Your task to perform on an android device: Show me the alarms in the clock app Image 0: 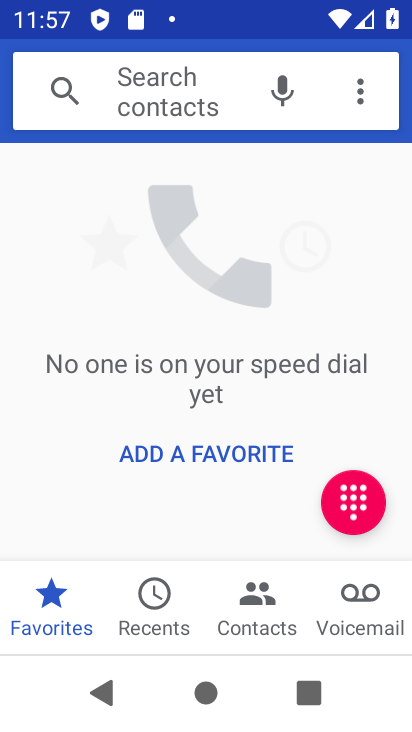
Step 0: press home button
Your task to perform on an android device: Show me the alarms in the clock app Image 1: 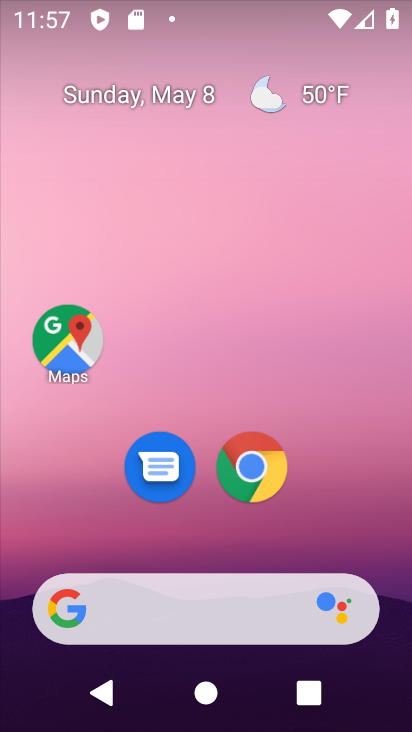
Step 1: drag from (223, 529) to (271, 104)
Your task to perform on an android device: Show me the alarms in the clock app Image 2: 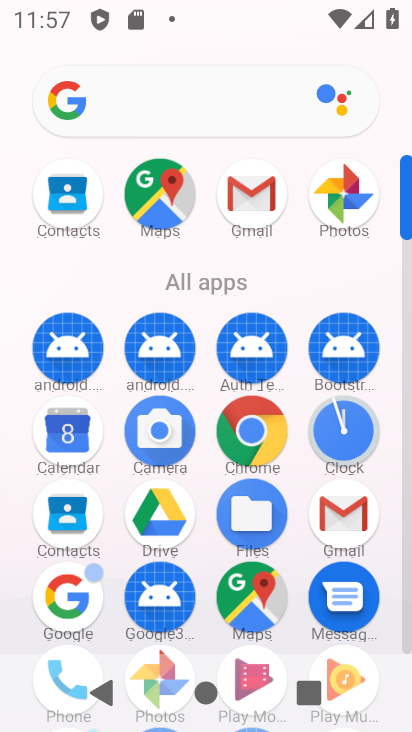
Step 2: click (343, 424)
Your task to perform on an android device: Show me the alarms in the clock app Image 3: 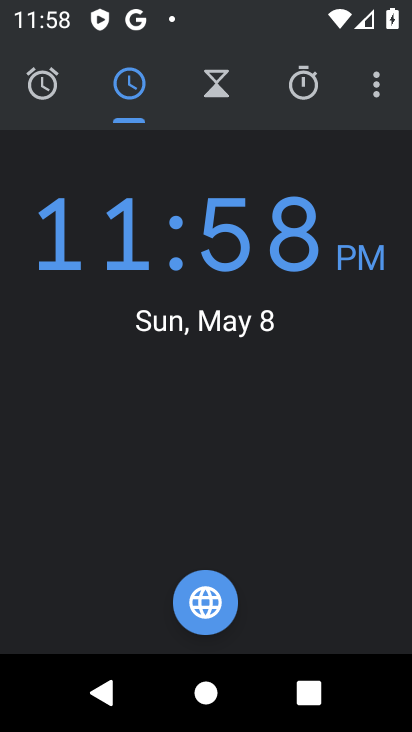
Step 3: click (44, 83)
Your task to perform on an android device: Show me the alarms in the clock app Image 4: 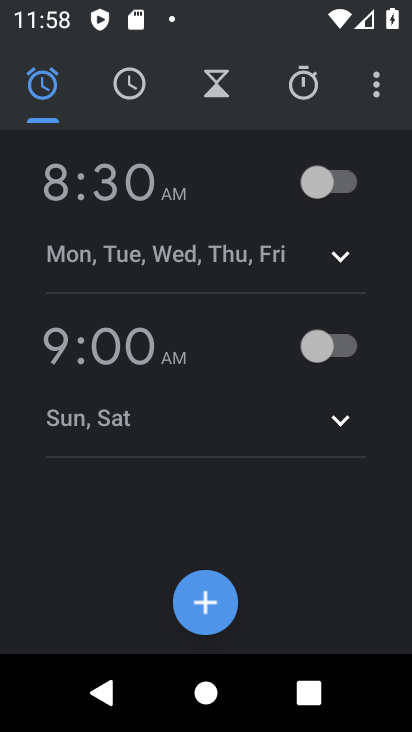
Step 4: click (339, 180)
Your task to perform on an android device: Show me the alarms in the clock app Image 5: 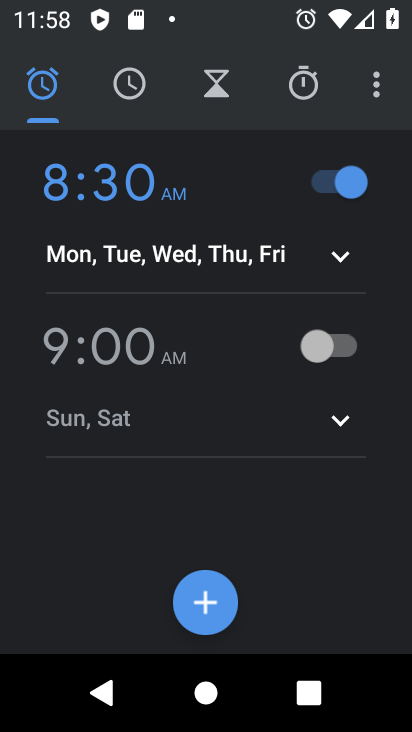
Step 5: task complete